Your task to perform on an android device: open app "Reddit" Image 0: 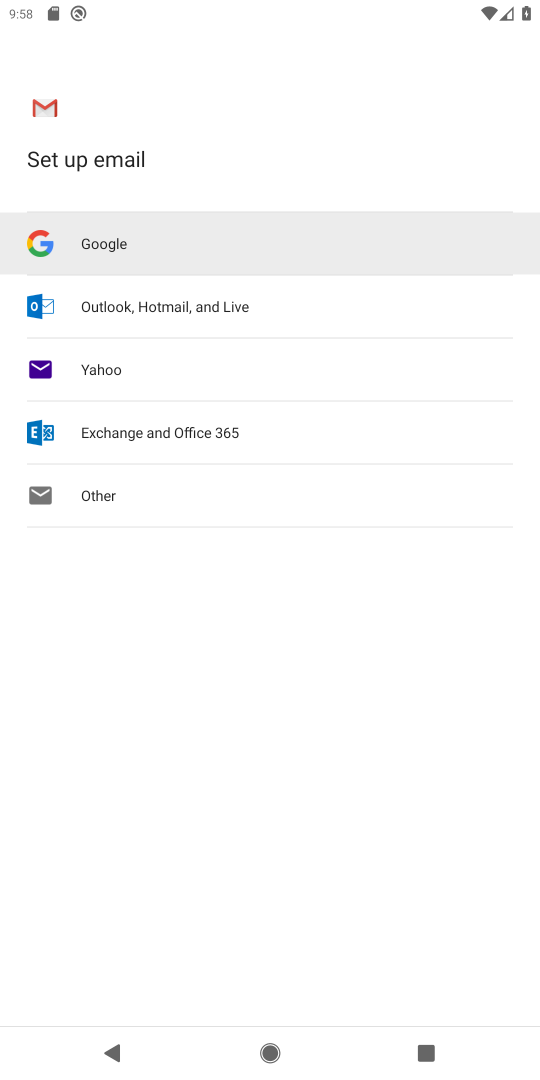
Step 0: press home button
Your task to perform on an android device: open app "Reddit" Image 1: 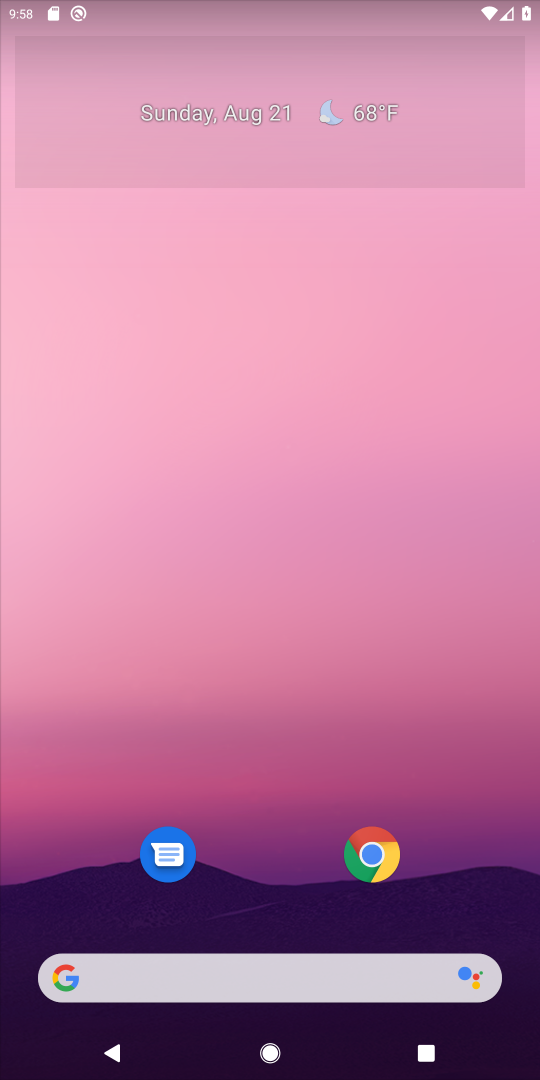
Step 1: drag from (249, 893) to (296, 5)
Your task to perform on an android device: open app "Reddit" Image 2: 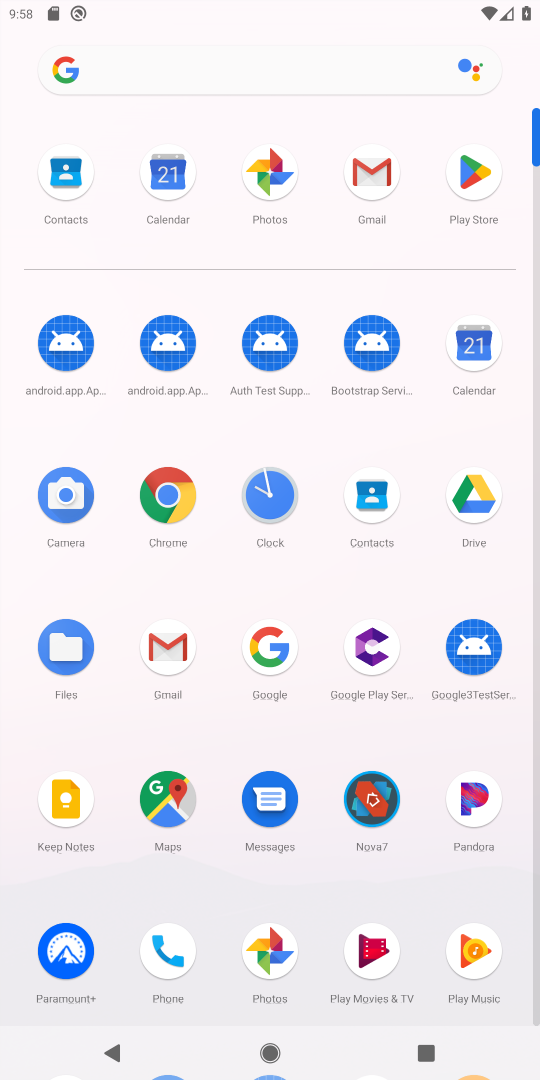
Step 2: click (468, 202)
Your task to perform on an android device: open app "Reddit" Image 3: 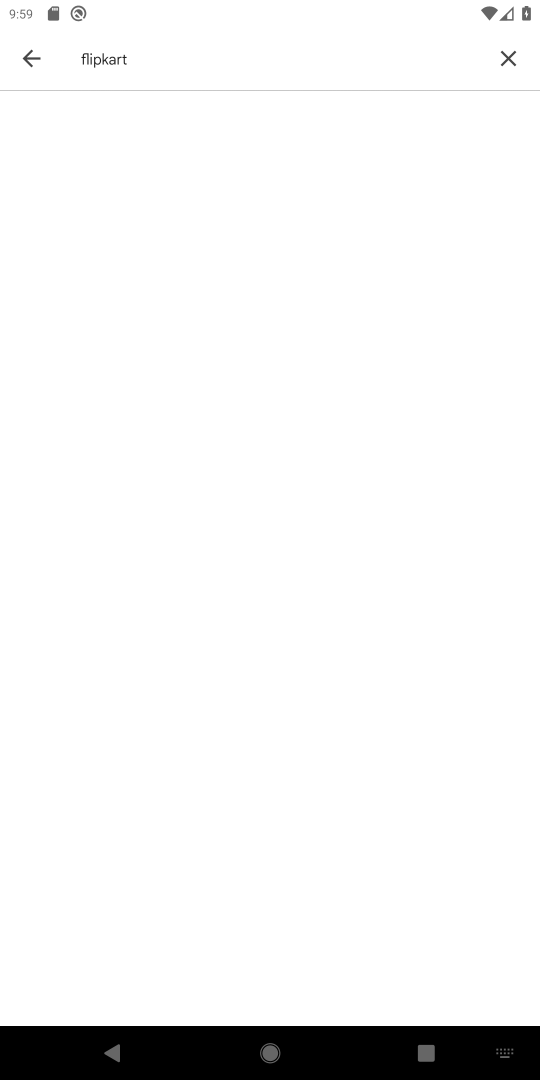
Step 3: click (497, 68)
Your task to perform on an android device: open app "Reddit" Image 4: 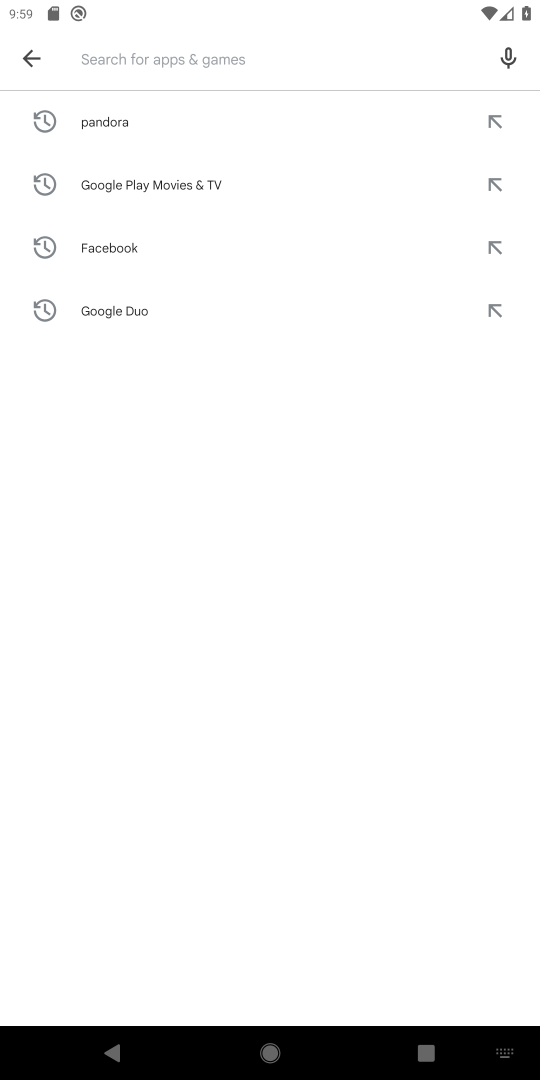
Step 4: type "reddit"
Your task to perform on an android device: open app "Reddit" Image 5: 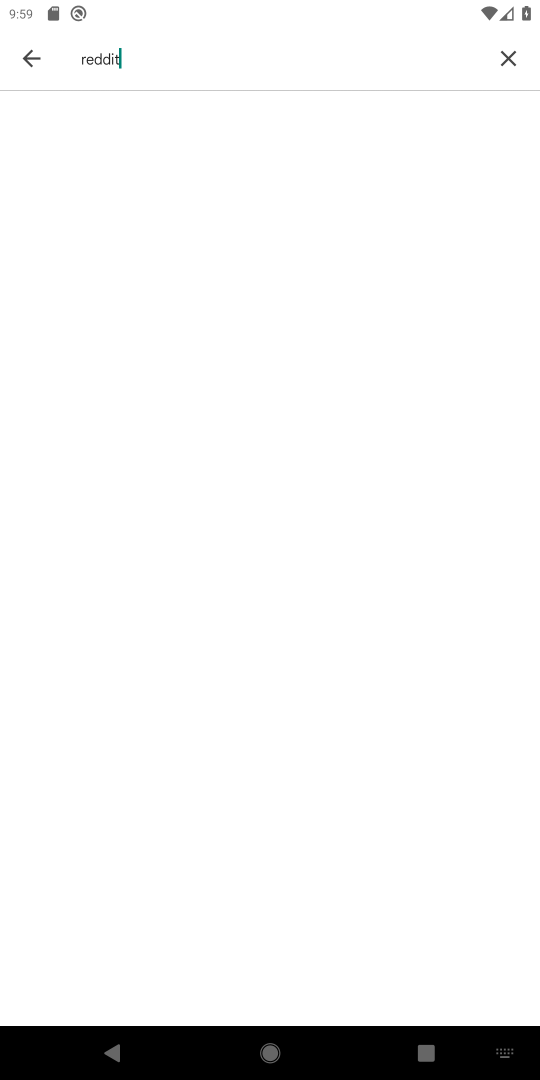
Step 5: task complete